Your task to perform on an android device: Open display settings Image 0: 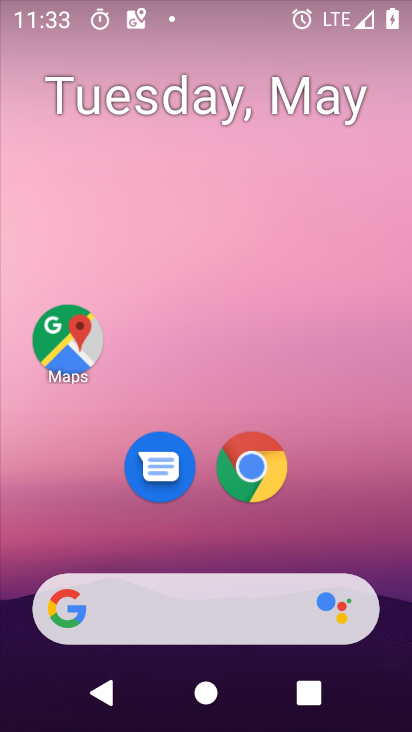
Step 0: drag from (330, 386) to (242, 25)
Your task to perform on an android device: Open display settings Image 1: 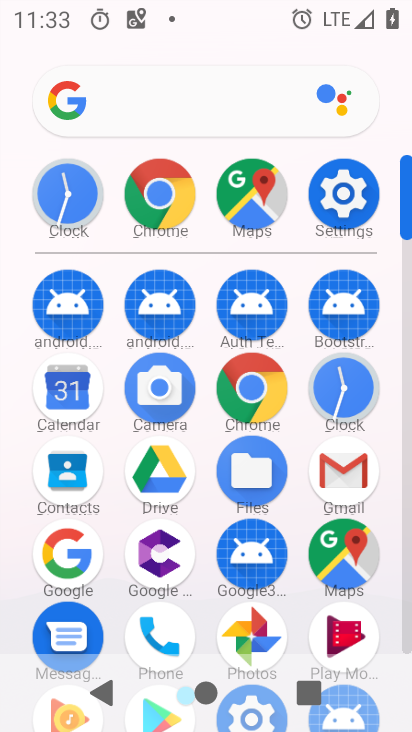
Step 1: click (343, 187)
Your task to perform on an android device: Open display settings Image 2: 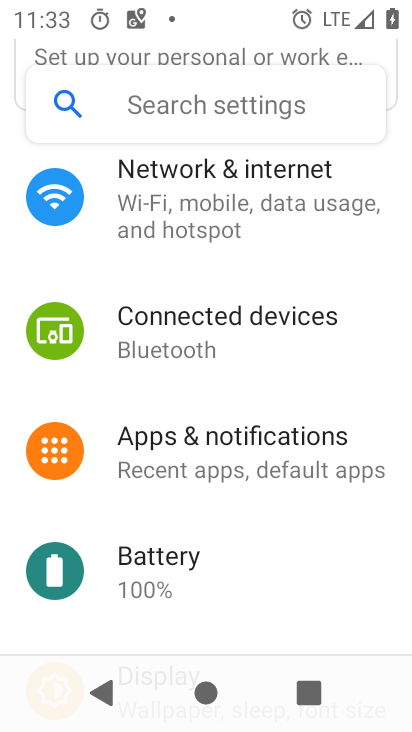
Step 2: drag from (341, 322) to (285, 624)
Your task to perform on an android device: Open display settings Image 3: 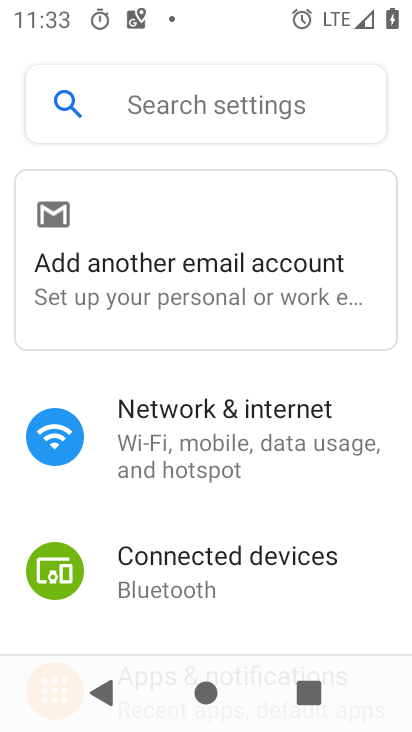
Step 3: drag from (306, 571) to (344, 210)
Your task to perform on an android device: Open display settings Image 4: 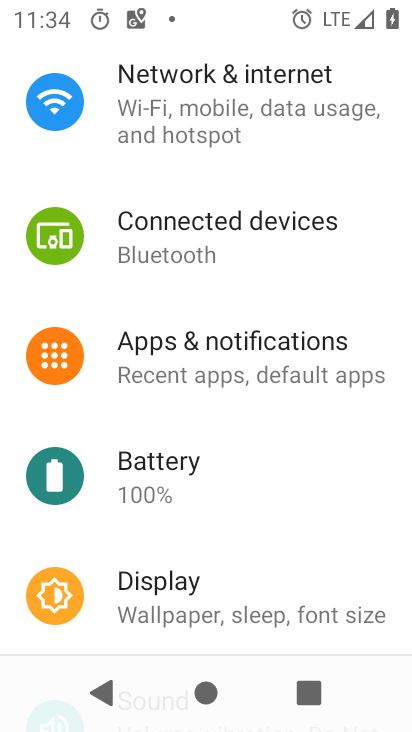
Step 4: click (201, 577)
Your task to perform on an android device: Open display settings Image 5: 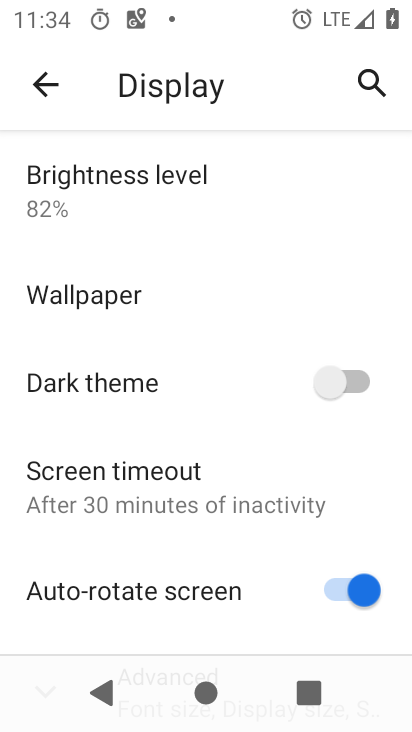
Step 5: drag from (219, 586) to (263, 201)
Your task to perform on an android device: Open display settings Image 6: 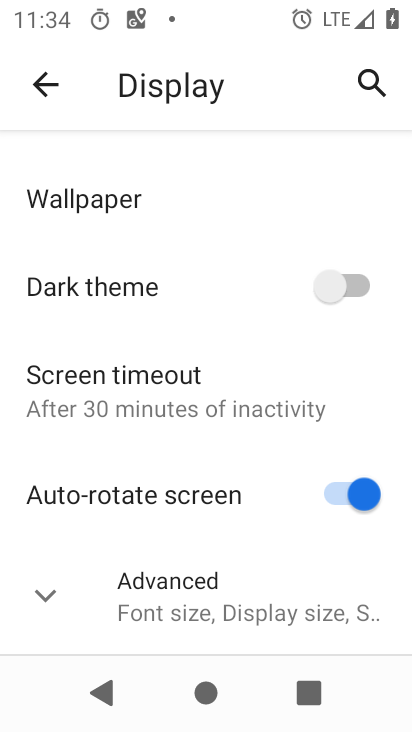
Step 6: click (70, 606)
Your task to perform on an android device: Open display settings Image 7: 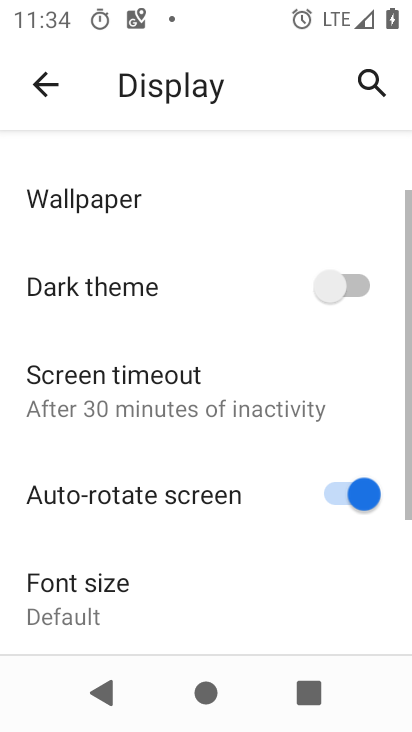
Step 7: task complete